Your task to perform on an android device: Open the web browser Image 0: 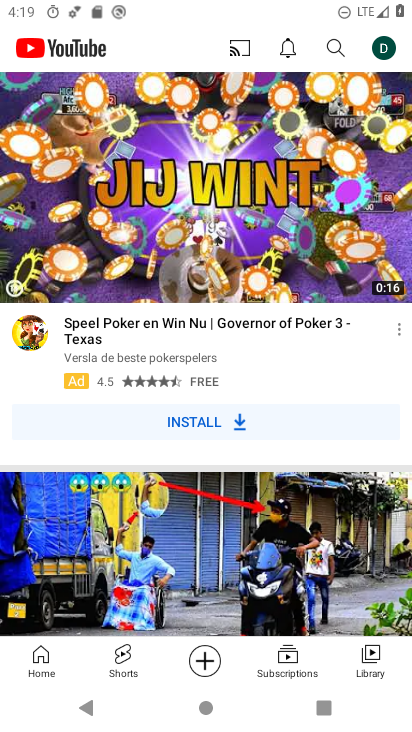
Step 0: press home button
Your task to perform on an android device: Open the web browser Image 1: 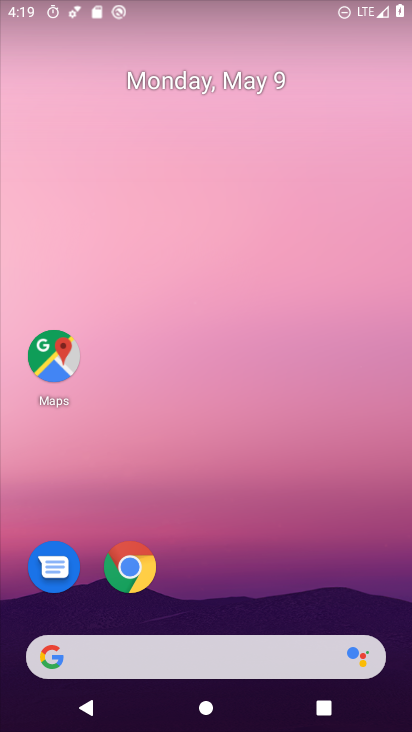
Step 1: click (124, 568)
Your task to perform on an android device: Open the web browser Image 2: 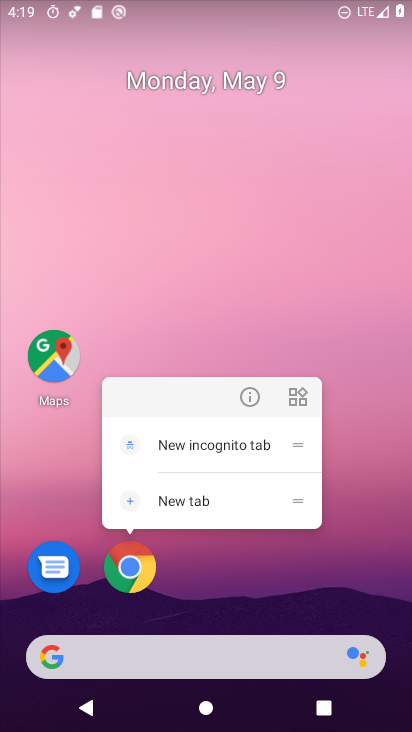
Step 2: click (130, 572)
Your task to perform on an android device: Open the web browser Image 3: 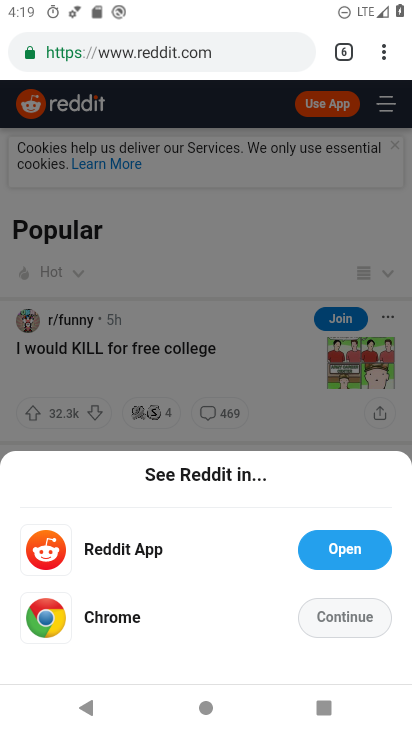
Step 3: task complete